Your task to perform on an android device: allow cookies in the chrome app Image 0: 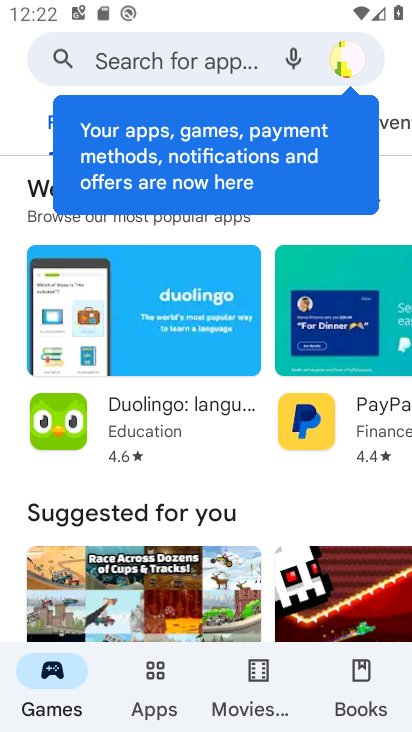
Step 0: press home button
Your task to perform on an android device: allow cookies in the chrome app Image 1: 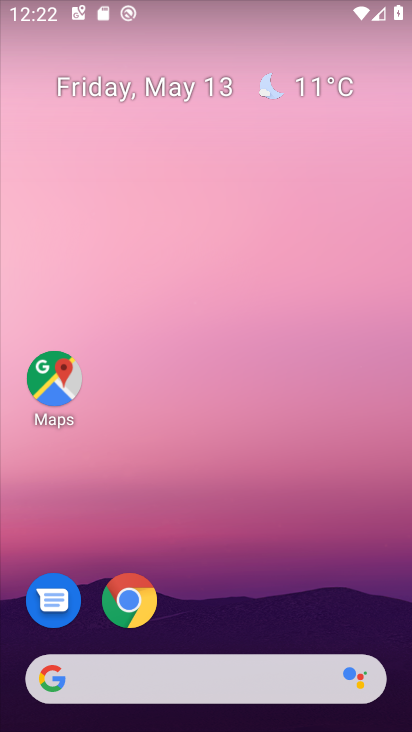
Step 1: click (140, 596)
Your task to perform on an android device: allow cookies in the chrome app Image 2: 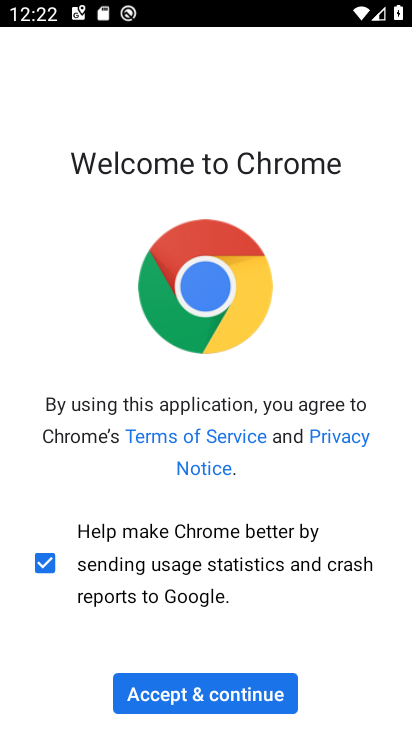
Step 2: click (186, 707)
Your task to perform on an android device: allow cookies in the chrome app Image 3: 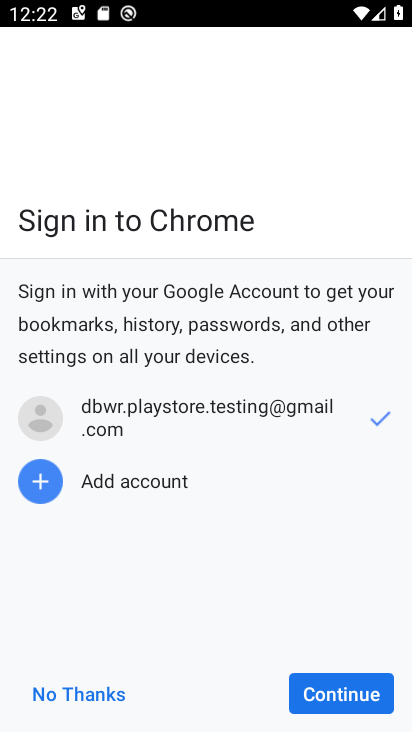
Step 3: click (318, 686)
Your task to perform on an android device: allow cookies in the chrome app Image 4: 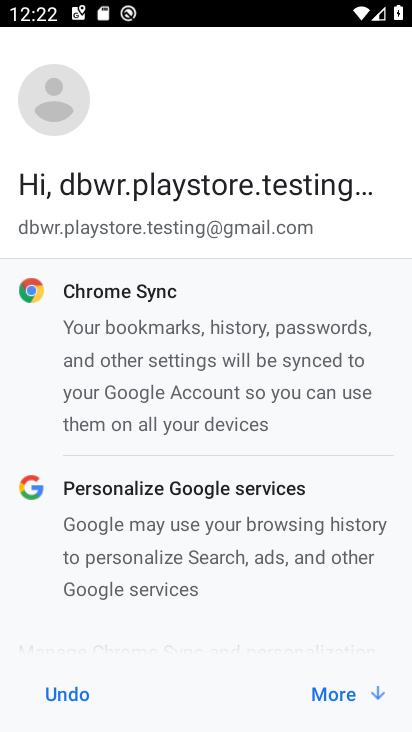
Step 4: click (318, 686)
Your task to perform on an android device: allow cookies in the chrome app Image 5: 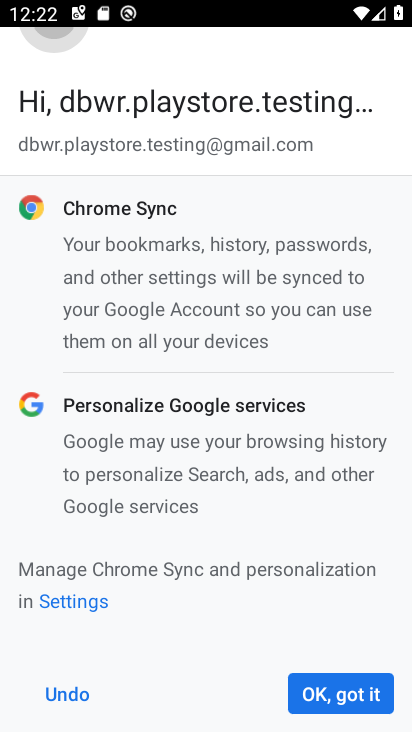
Step 5: click (318, 686)
Your task to perform on an android device: allow cookies in the chrome app Image 6: 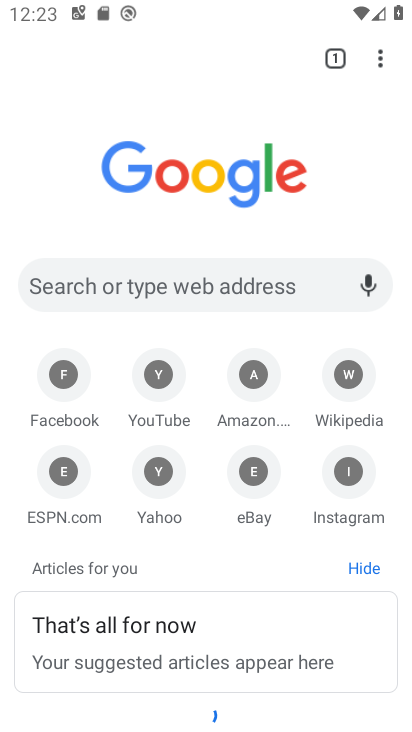
Step 6: click (379, 58)
Your task to perform on an android device: allow cookies in the chrome app Image 7: 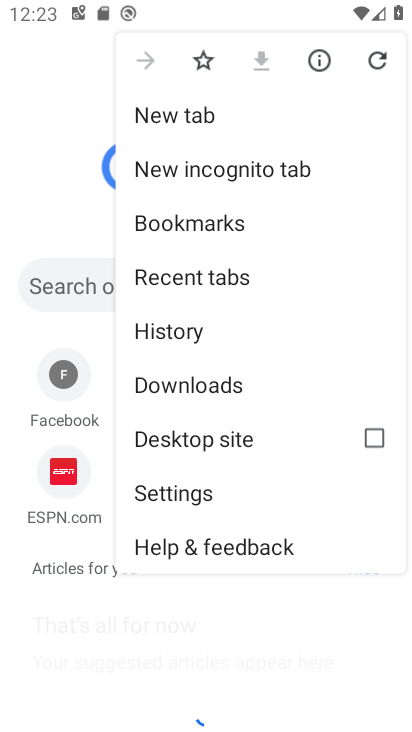
Step 7: click (194, 492)
Your task to perform on an android device: allow cookies in the chrome app Image 8: 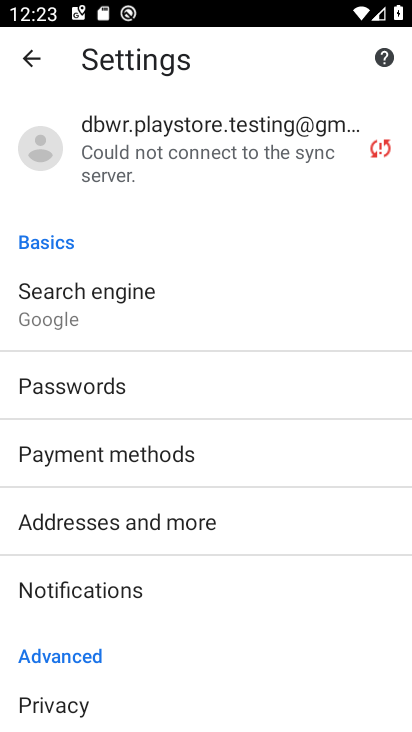
Step 8: drag from (132, 662) to (169, 281)
Your task to perform on an android device: allow cookies in the chrome app Image 9: 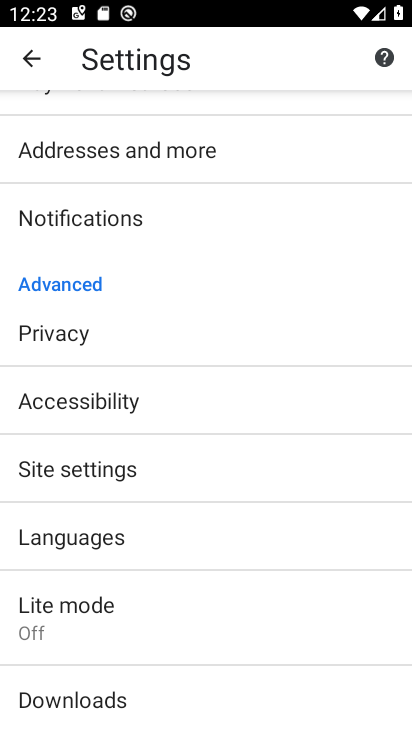
Step 9: click (105, 476)
Your task to perform on an android device: allow cookies in the chrome app Image 10: 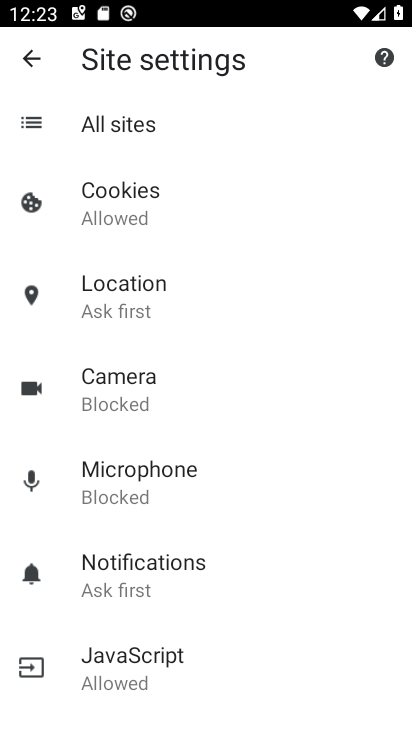
Step 10: task complete